Your task to perform on an android device: Open maps Image 0: 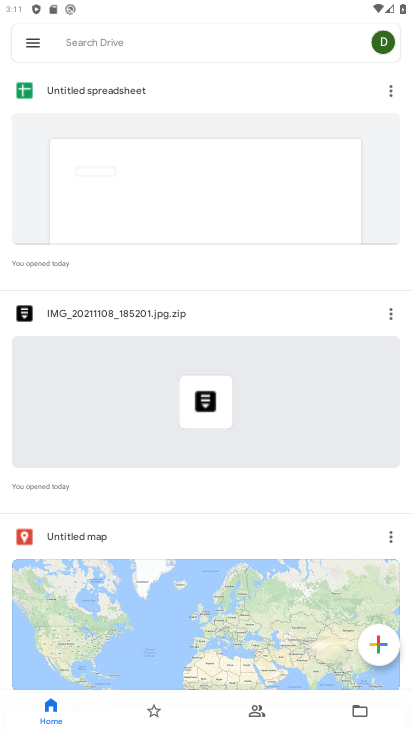
Step 0: press home button
Your task to perform on an android device: Open maps Image 1: 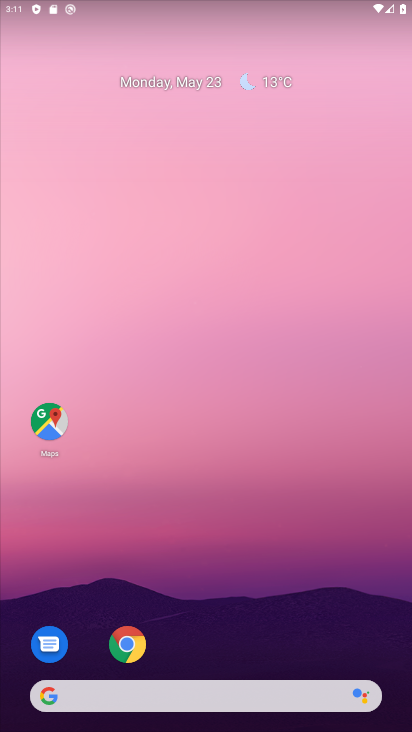
Step 1: click (35, 410)
Your task to perform on an android device: Open maps Image 2: 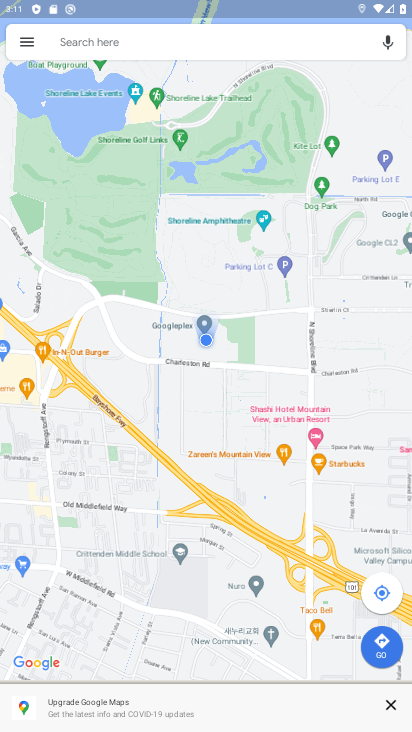
Step 2: task complete